Your task to perform on an android device: open app "Chime – Mobile Banking" (install if not already installed), go to login, and select forgot password Image 0: 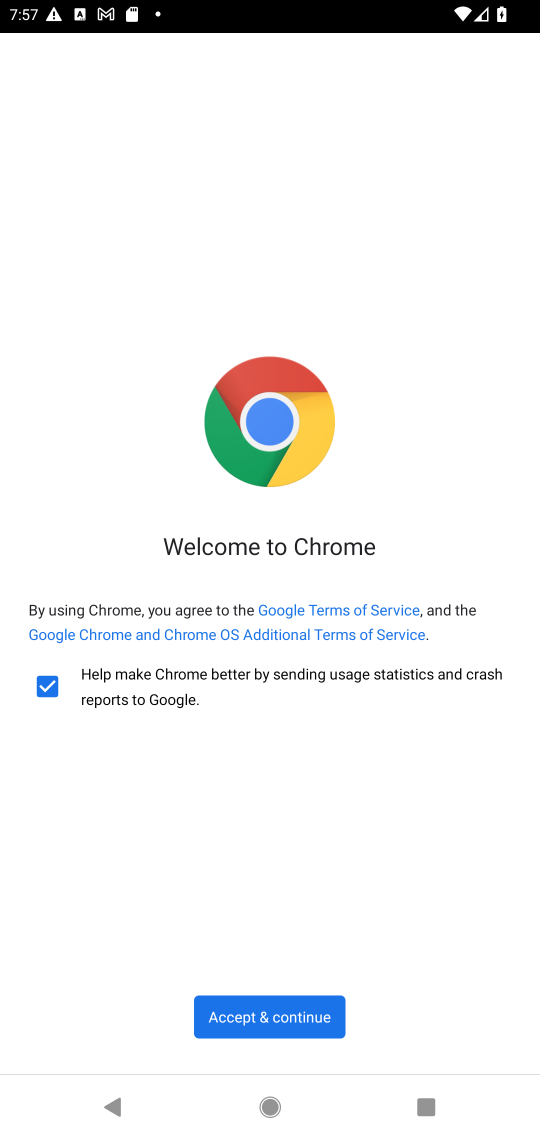
Step 0: press home button
Your task to perform on an android device: open app "Chime – Mobile Banking" (install if not already installed), go to login, and select forgot password Image 1: 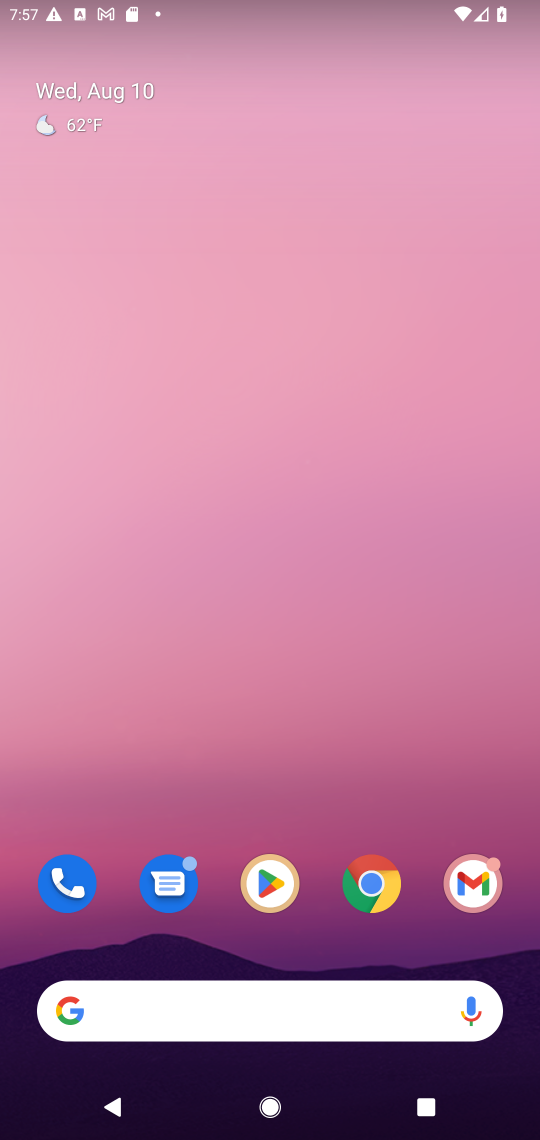
Step 1: click (287, 877)
Your task to perform on an android device: open app "Chime – Mobile Banking" (install if not already installed), go to login, and select forgot password Image 2: 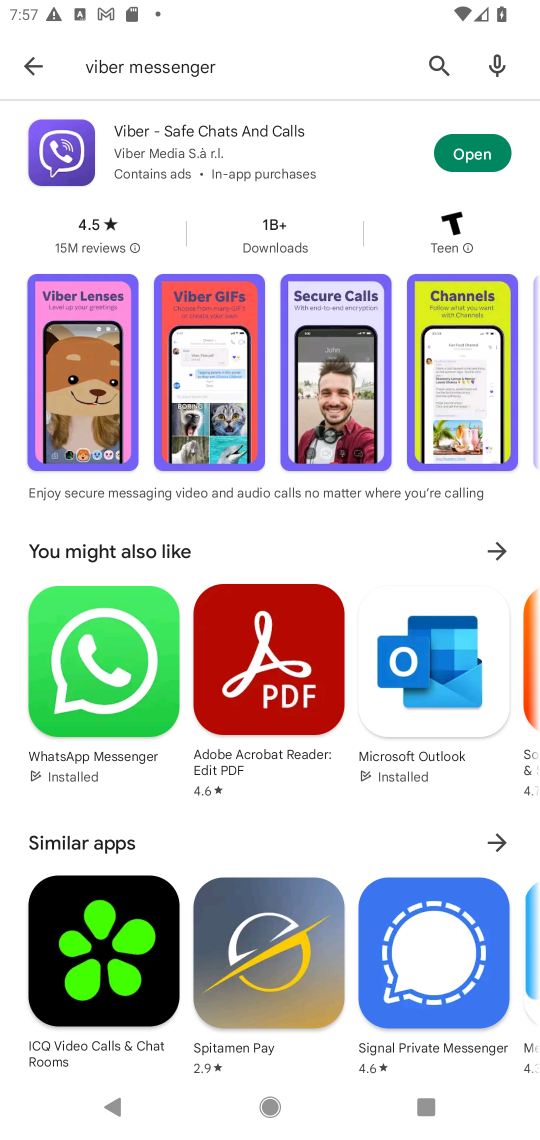
Step 2: click (428, 74)
Your task to perform on an android device: open app "Chime – Mobile Banking" (install if not already installed), go to login, and select forgot password Image 3: 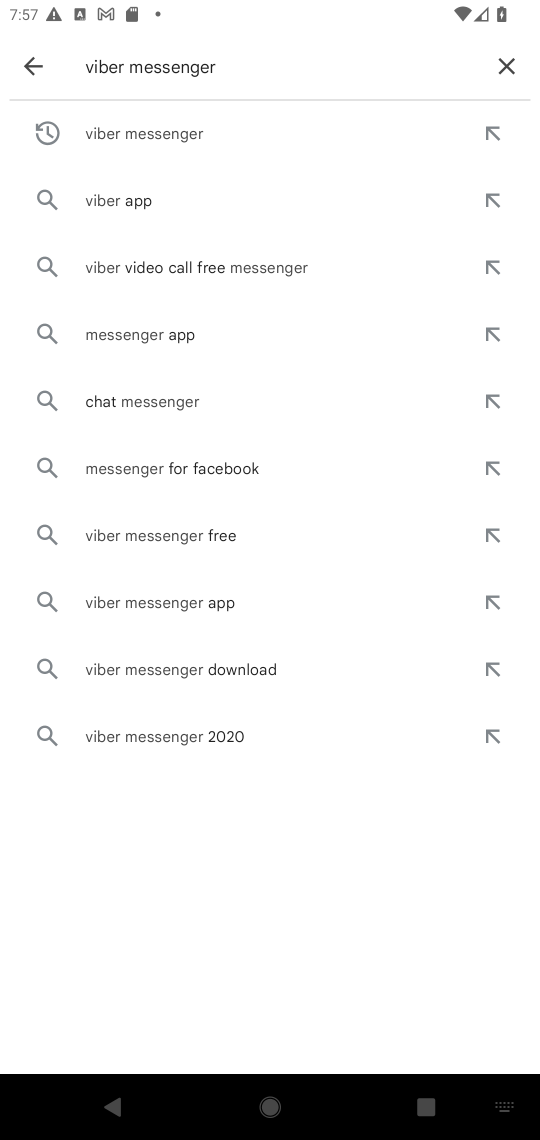
Step 3: click (507, 57)
Your task to perform on an android device: open app "Chime – Mobile Banking" (install if not already installed), go to login, and select forgot password Image 4: 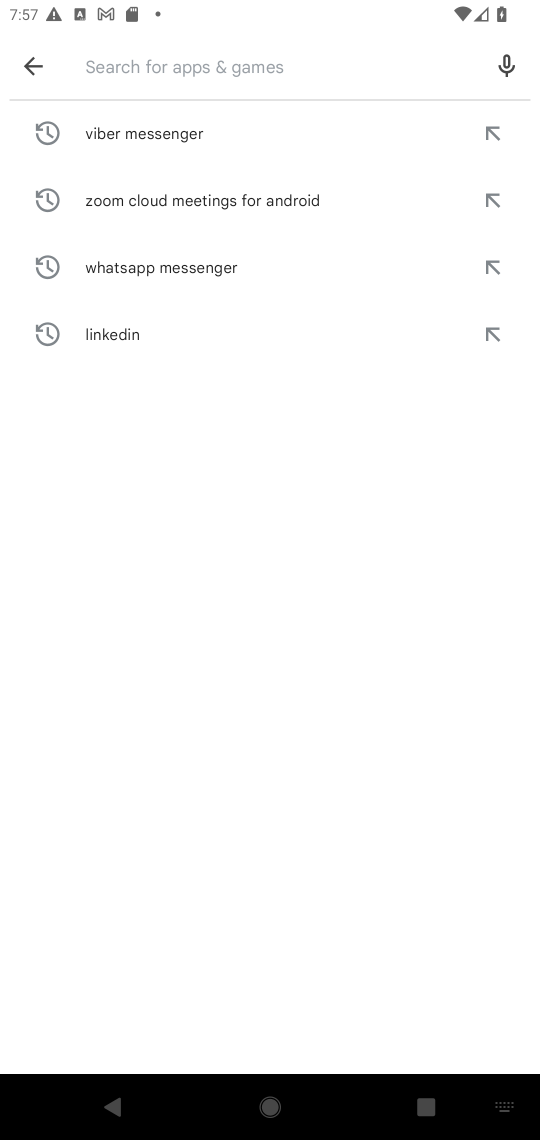
Step 4: type "Chime – Mobile Banking"
Your task to perform on an android device: open app "Chime – Mobile Banking" (install if not already installed), go to login, and select forgot password Image 5: 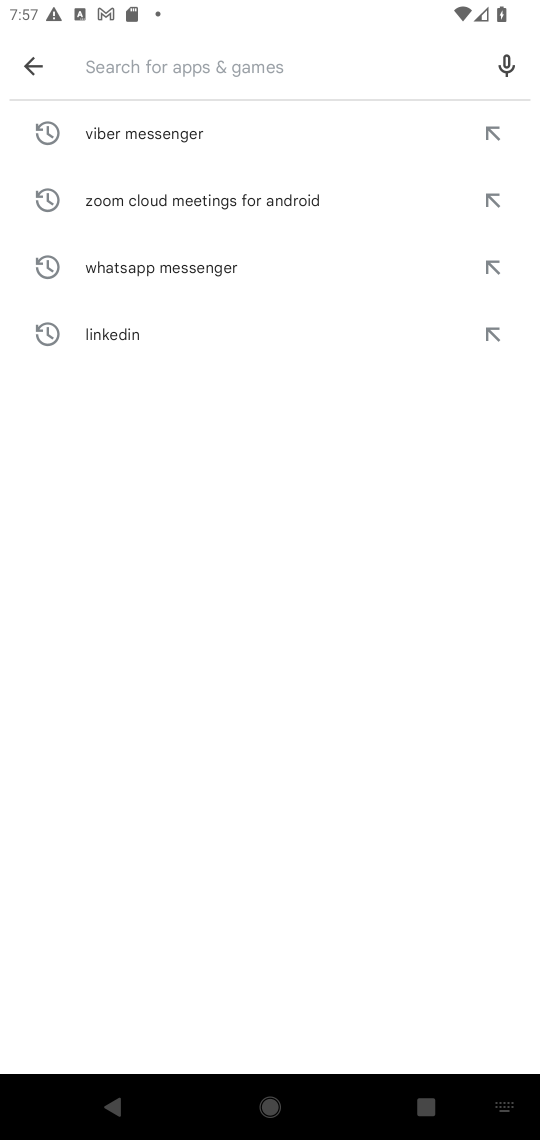
Step 5: type ""
Your task to perform on an android device: open app "Chime – Mobile Banking" (install if not already installed), go to login, and select forgot password Image 6: 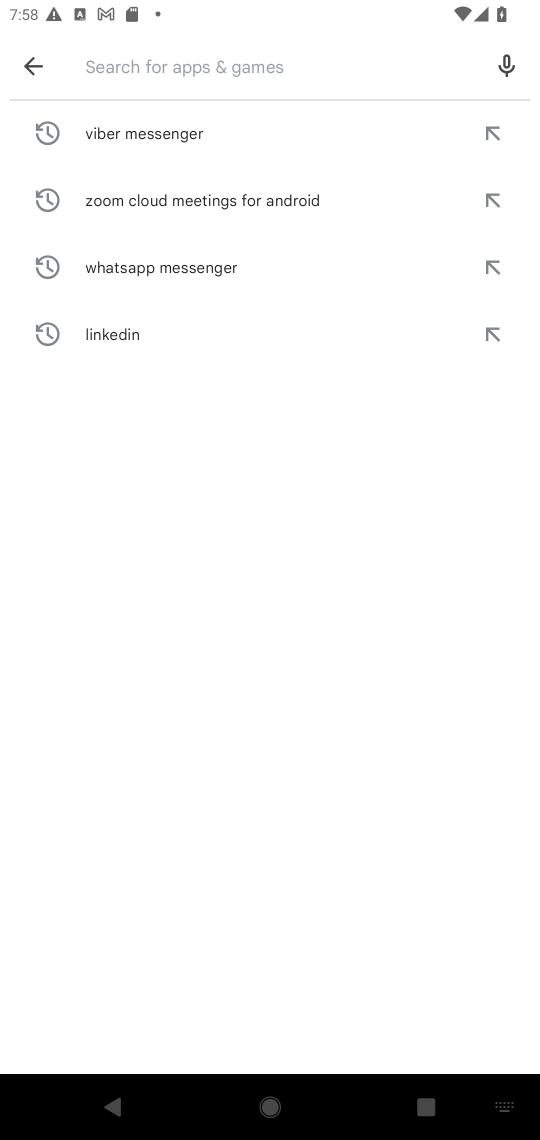
Step 6: type "Chime – Mobile Banking"
Your task to perform on an android device: open app "Chime – Mobile Banking" (install if not already installed), go to login, and select forgot password Image 7: 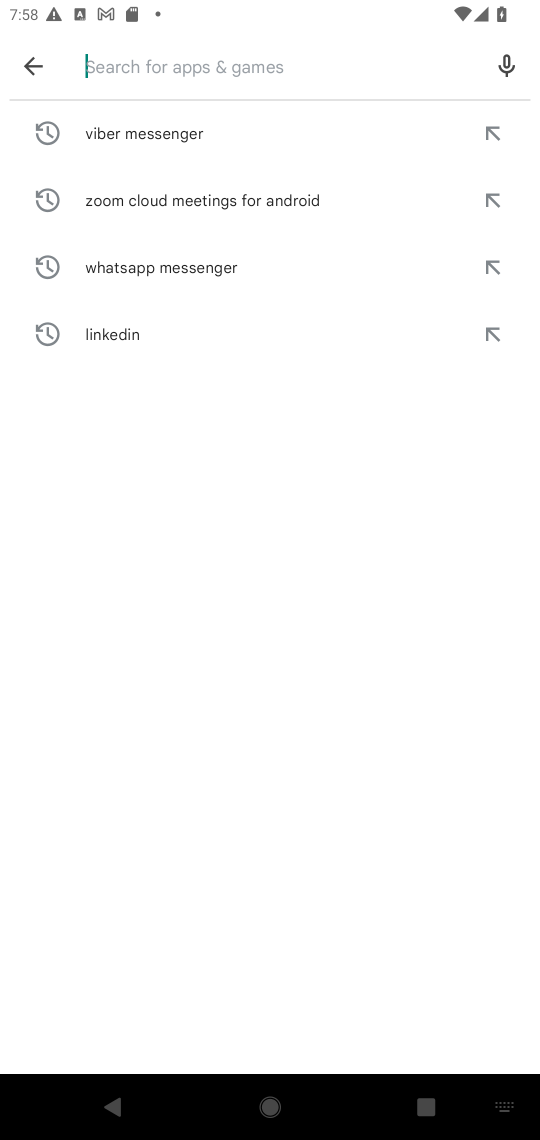
Step 7: type ""
Your task to perform on an android device: open app "Chime – Mobile Banking" (install if not already installed), go to login, and select forgot password Image 8: 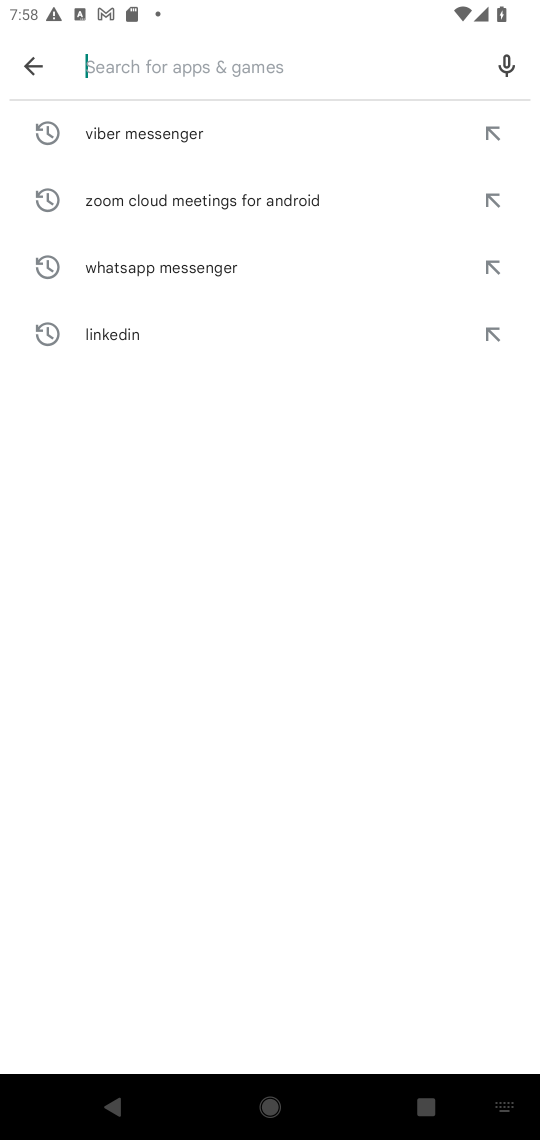
Step 8: type "Chime "
Your task to perform on an android device: open app "Chime – Mobile Banking" (install if not already installed), go to login, and select forgot password Image 9: 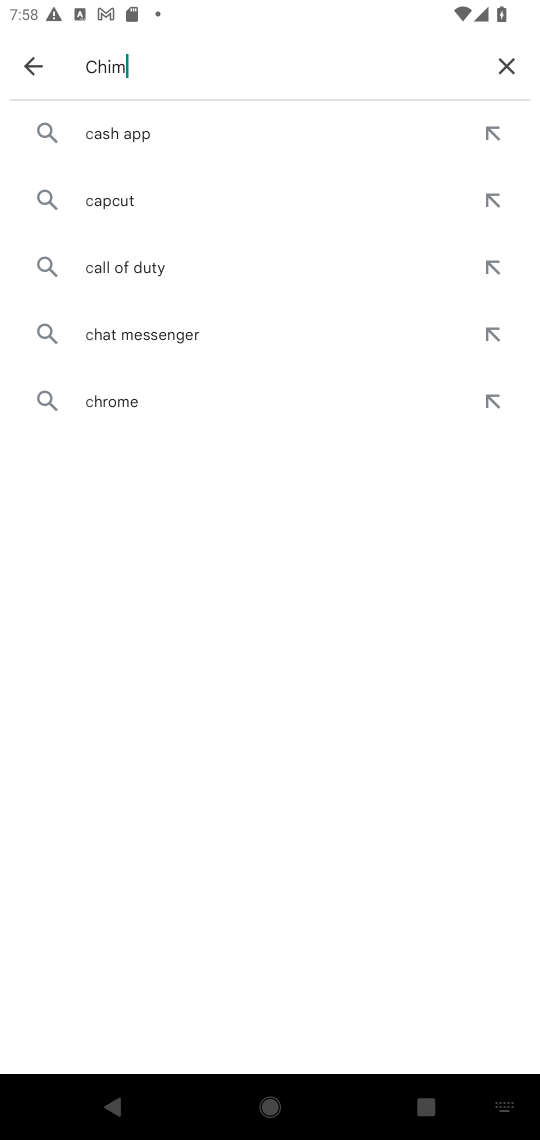
Step 9: type ""
Your task to perform on an android device: open app "Chime – Mobile Banking" (install if not already installed), go to login, and select forgot password Image 10: 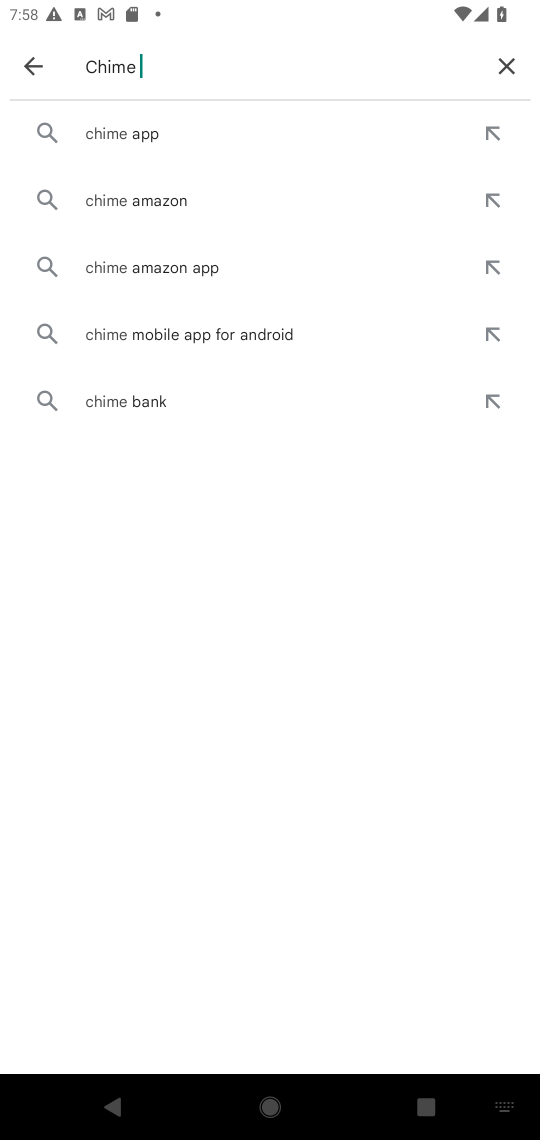
Step 10: click (217, 140)
Your task to perform on an android device: open app "Chime – Mobile Banking" (install if not already installed), go to login, and select forgot password Image 11: 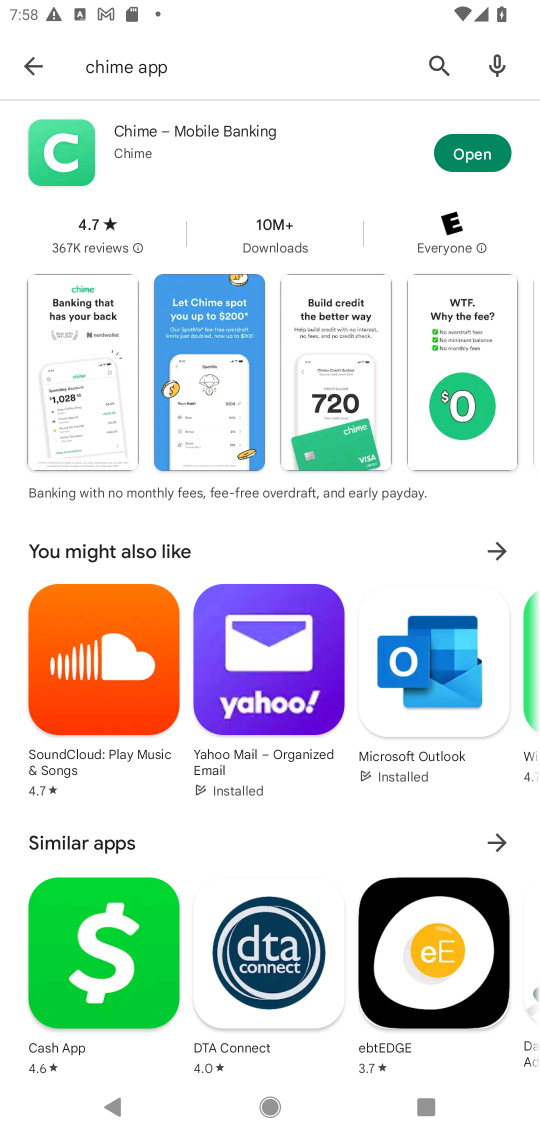
Step 11: click (495, 152)
Your task to perform on an android device: open app "Chime – Mobile Banking" (install if not already installed), go to login, and select forgot password Image 12: 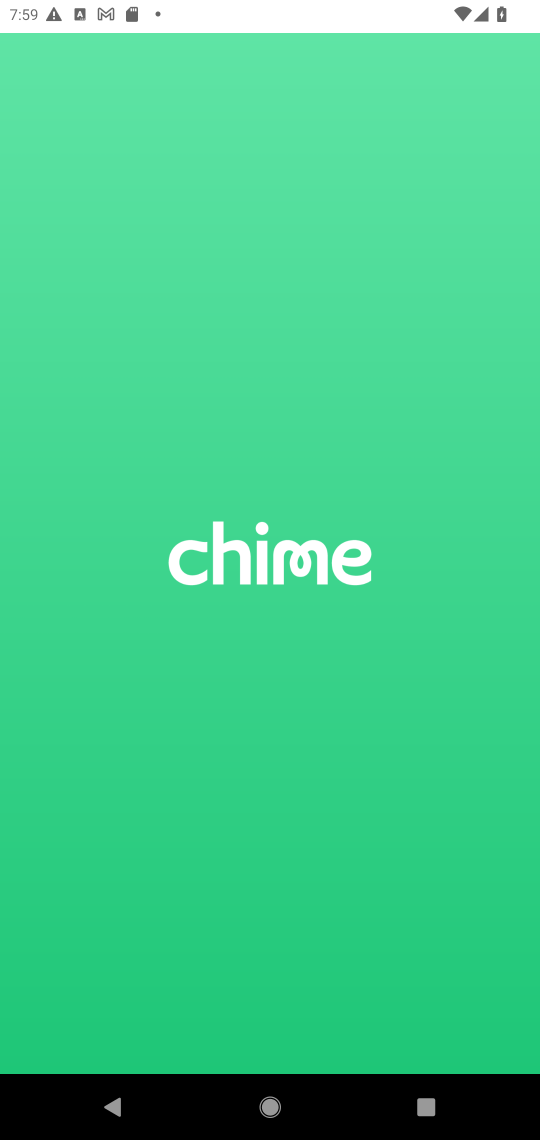
Step 12: task complete